Your task to perform on an android device: check the backup settings in the google photos Image 0: 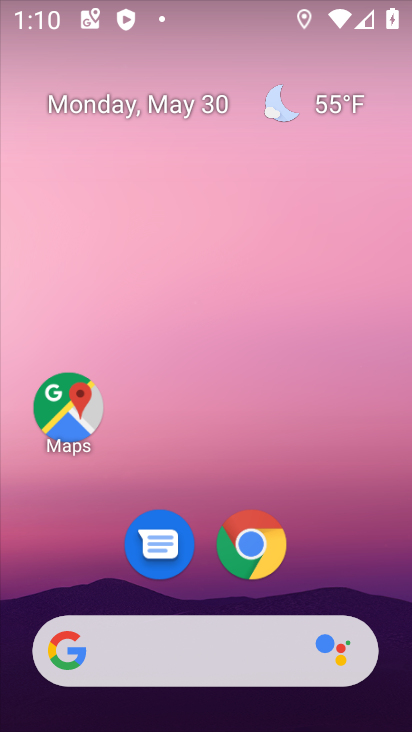
Step 0: drag from (333, 528) to (303, 35)
Your task to perform on an android device: check the backup settings in the google photos Image 1: 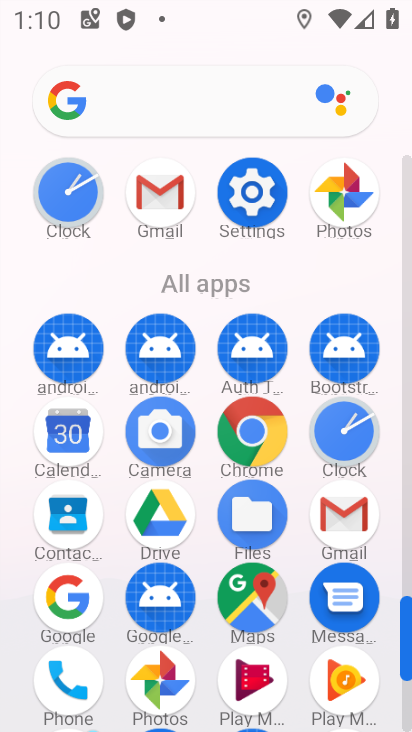
Step 1: click (363, 183)
Your task to perform on an android device: check the backup settings in the google photos Image 2: 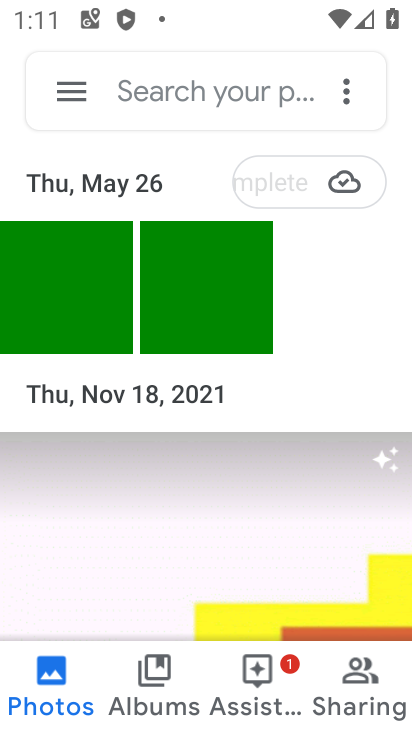
Step 2: click (53, 82)
Your task to perform on an android device: check the backup settings in the google photos Image 3: 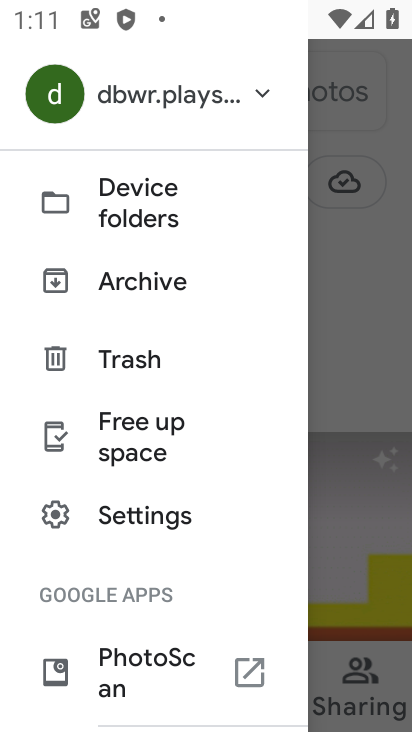
Step 3: drag from (207, 441) to (191, 238)
Your task to perform on an android device: check the backup settings in the google photos Image 4: 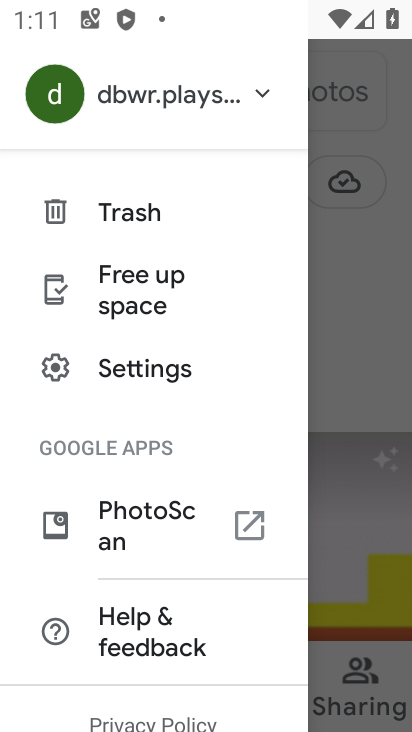
Step 4: click (155, 365)
Your task to perform on an android device: check the backup settings in the google photos Image 5: 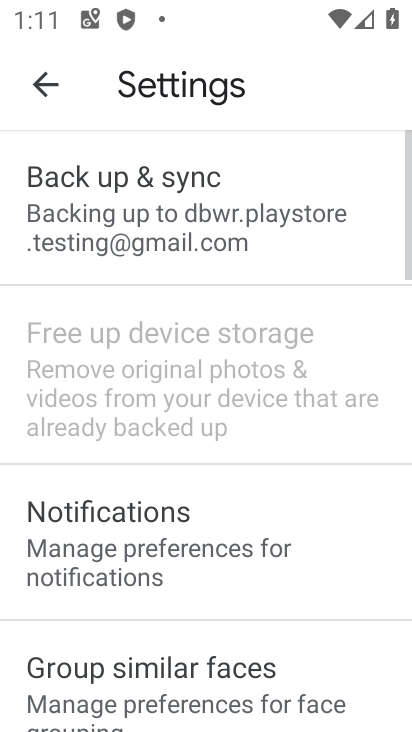
Step 5: click (122, 168)
Your task to perform on an android device: check the backup settings in the google photos Image 6: 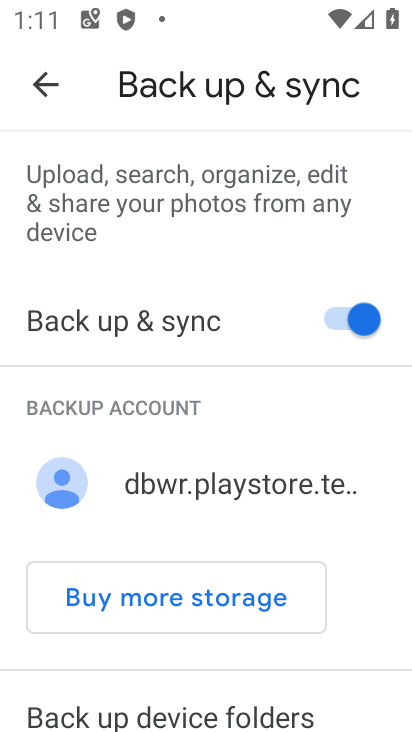
Step 6: task complete